Your task to perform on an android device: What's the weather going to be this weekend? Image 0: 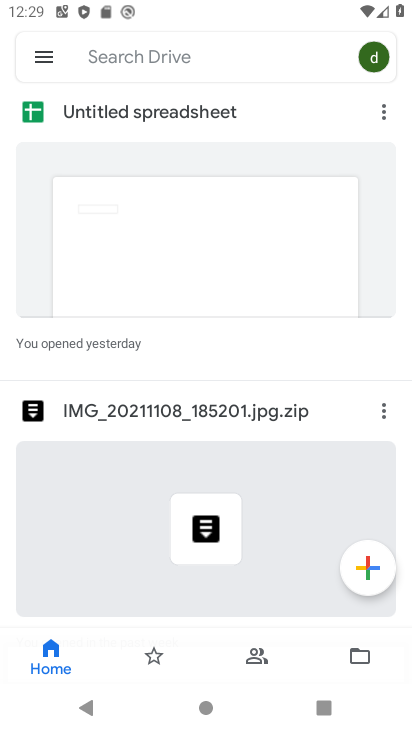
Step 0: press home button
Your task to perform on an android device: What's the weather going to be this weekend? Image 1: 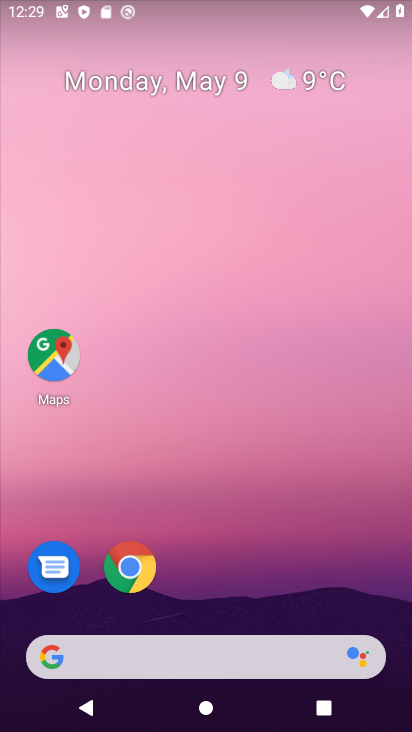
Step 1: drag from (249, 661) to (316, 316)
Your task to perform on an android device: What's the weather going to be this weekend? Image 2: 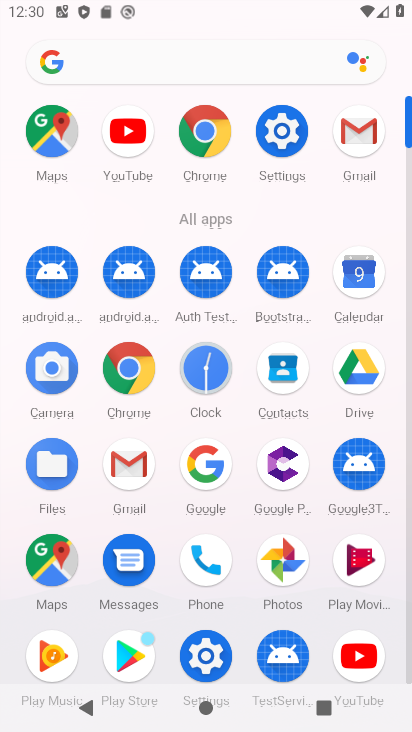
Step 2: click (178, 57)
Your task to perform on an android device: What's the weather going to be this weekend? Image 3: 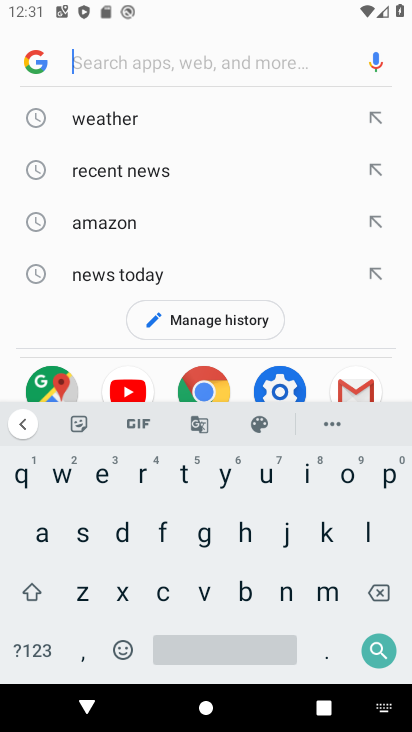
Step 3: click (116, 123)
Your task to perform on an android device: What's the weather going to be this weekend? Image 4: 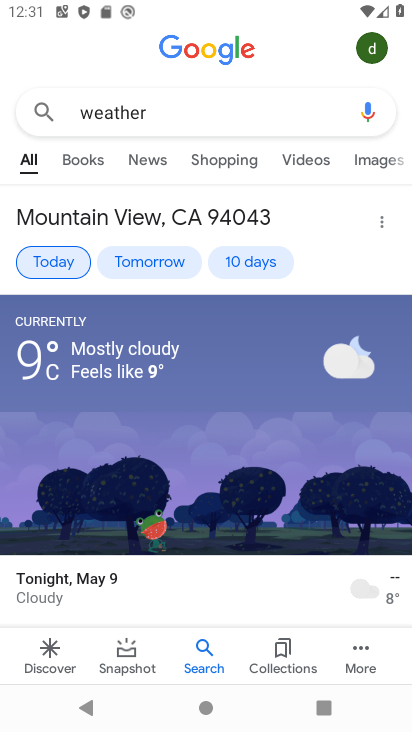
Step 4: click (257, 255)
Your task to perform on an android device: What's the weather going to be this weekend? Image 5: 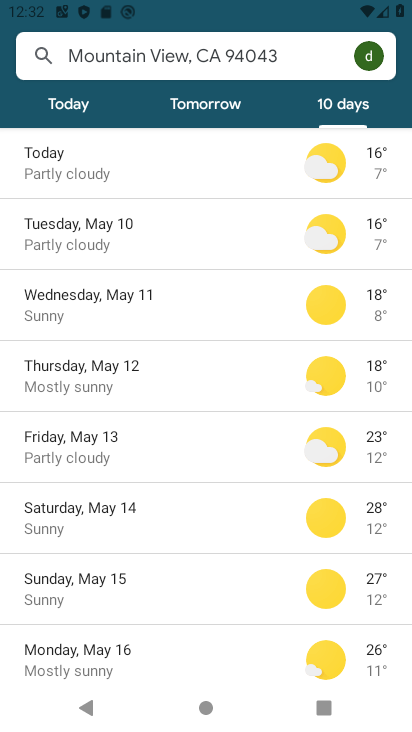
Step 5: task complete